Your task to perform on an android device: Is it going to rain this weekend? Image 0: 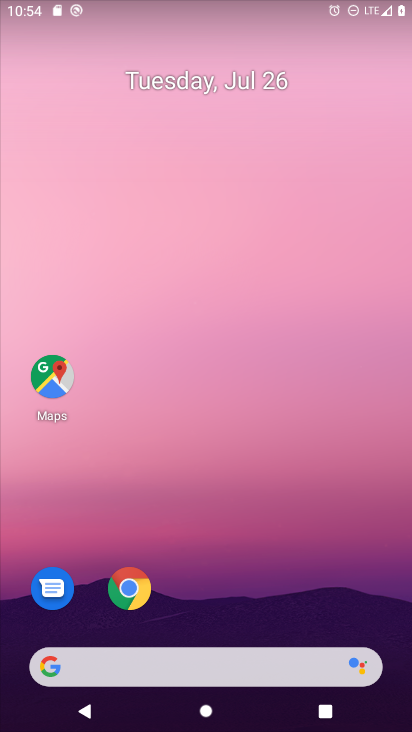
Step 0: drag from (248, 698) to (247, 118)
Your task to perform on an android device: Is it going to rain this weekend? Image 1: 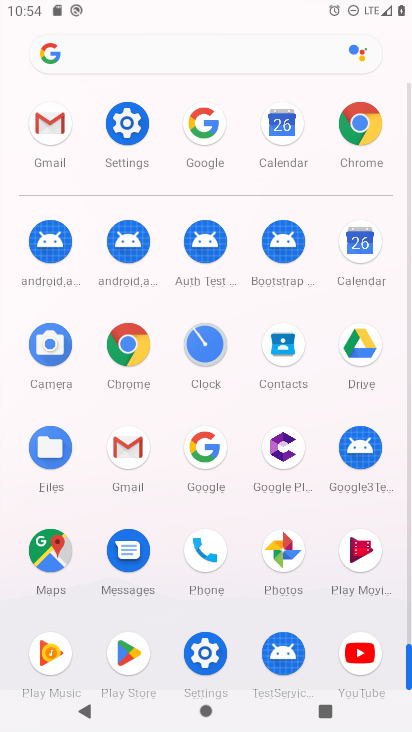
Step 1: click (202, 454)
Your task to perform on an android device: Is it going to rain this weekend? Image 2: 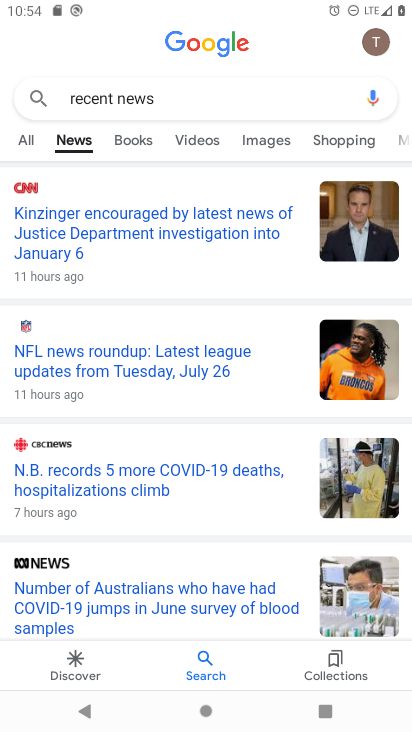
Step 2: click (273, 92)
Your task to perform on an android device: Is it going to rain this weekend? Image 3: 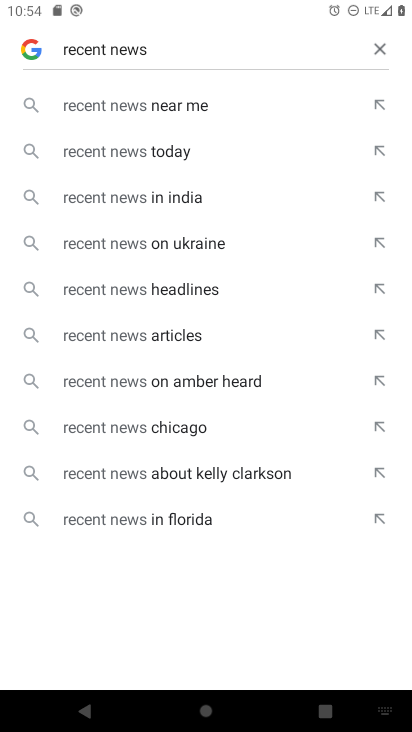
Step 3: click (377, 55)
Your task to perform on an android device: Is it going to rain this weekend? Image 4: 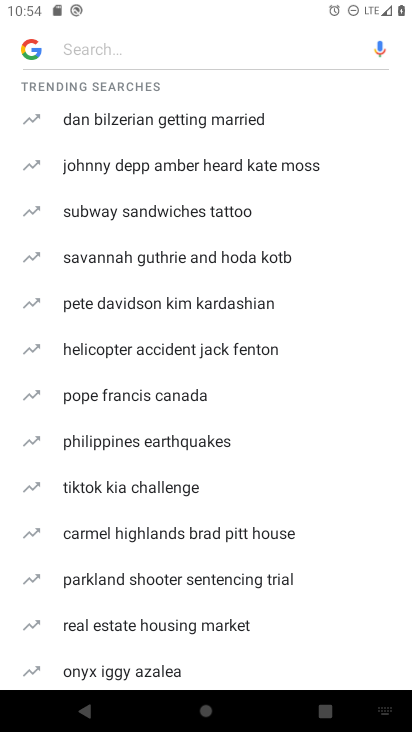
Step 4: type "weather"
Your task to perform on an android device: Is it going to rain this weekend? Image 5: 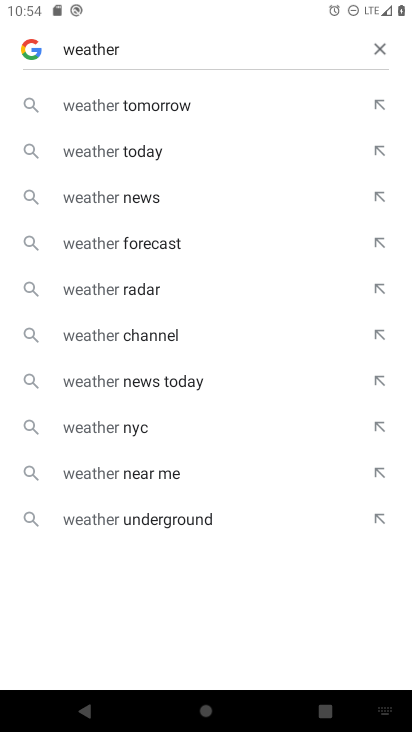
Step 5: click (157, 151)
Your task to perform on an android device: Is it going to rain this weekend? Image 6: 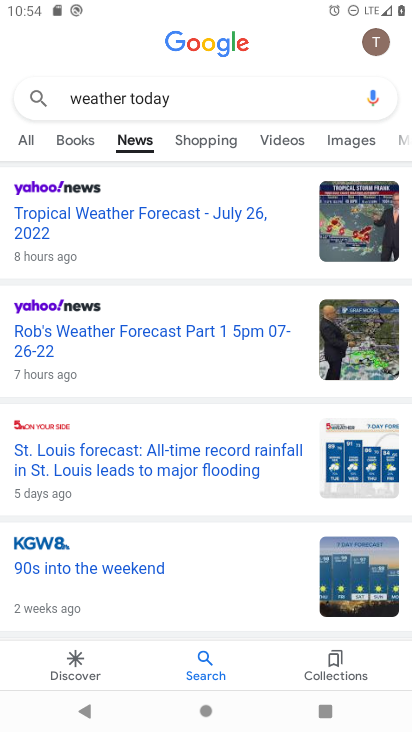
Step 6: click (28, 141)
Your task to perform on an android device: Is it going to rain this weekend? Image 7: 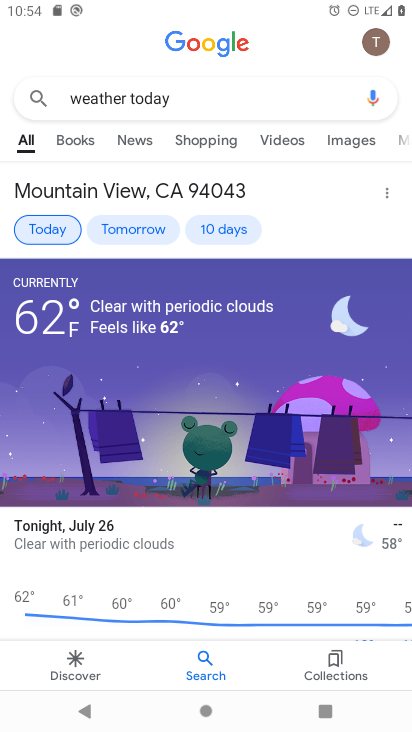
Step 7: click (236, 236)
Your task to perform on an android device: Is it going to rain this weekend? Image 8: 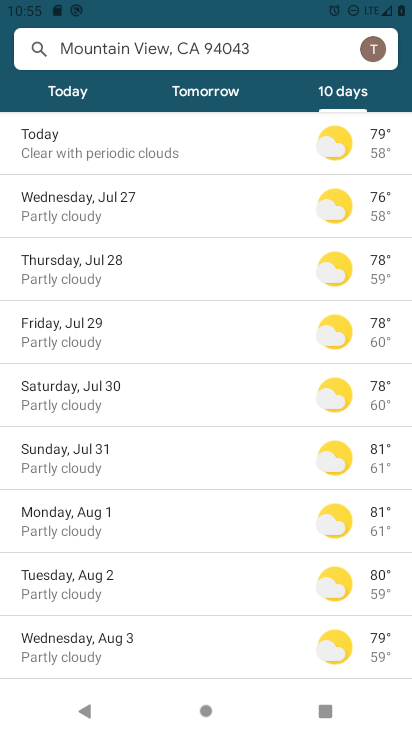
Step 8: task complete